Your task to perform on an android device: Open Amazon Image 0: 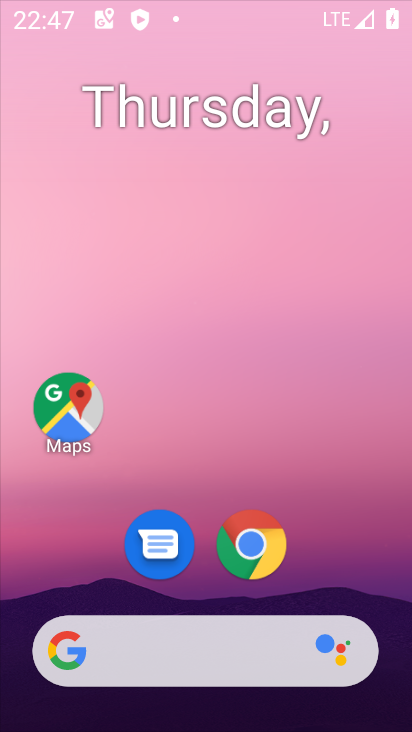
Step 0: click (85, 405)
Your task to perform on an android device: Open Amazon Image 1: 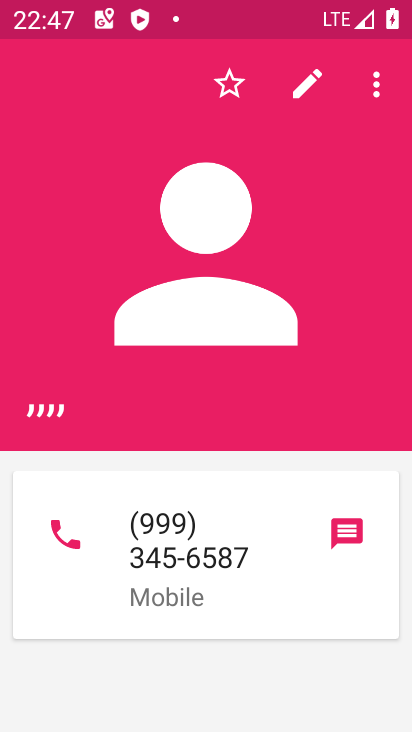
Step 1: press home button
Your task to perform on an android device: Open Amazon Image 2: 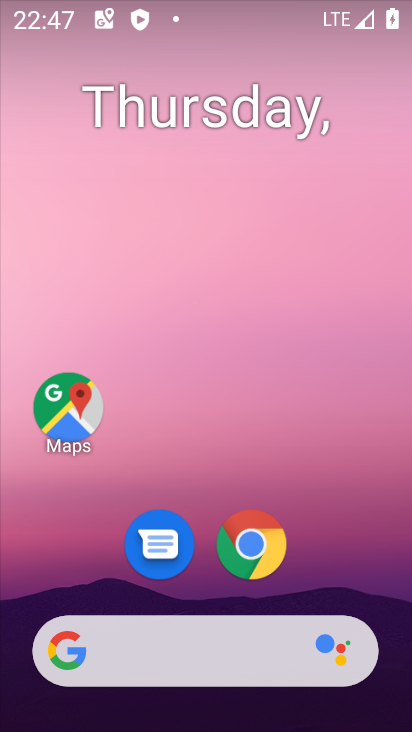
Step 2: click (242, 557)
Your task to perform on an android device: Open Amazon Image 3: 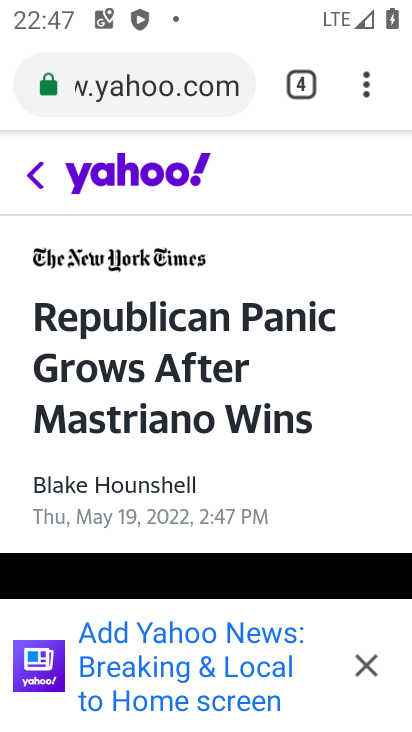
Step 3: click (300, 75)
Your task to perform on an android device: Open Amazon Image 4: 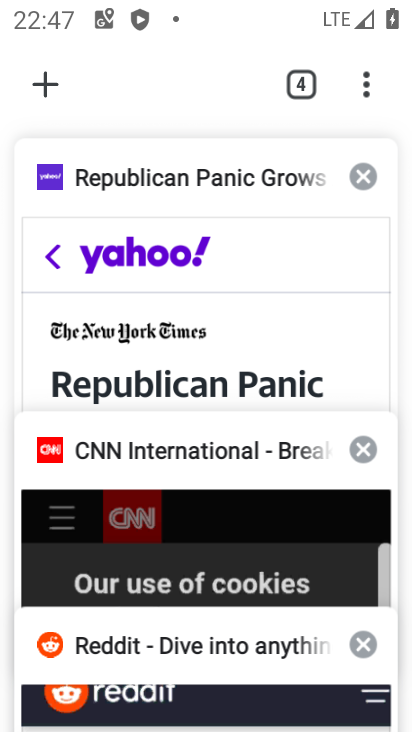
Step 4: click (42, 80)
Your task to perform on an android device: Open Amazon Image 5: 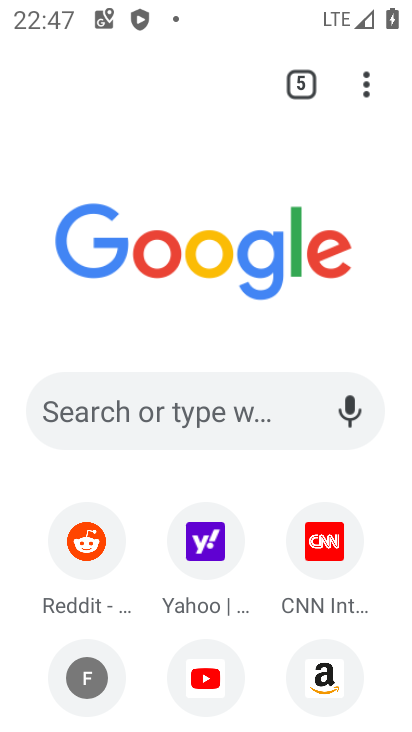
Step 5: click (320, 679)
Your task to perform on an android device: Open Amazon Image 6: 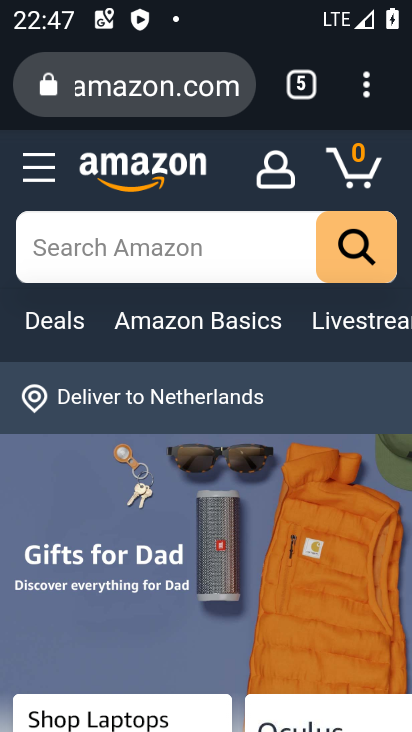
Step 6: task complete